Your task to perform on an android device: Is it going to rain tomorrow? Image 0: 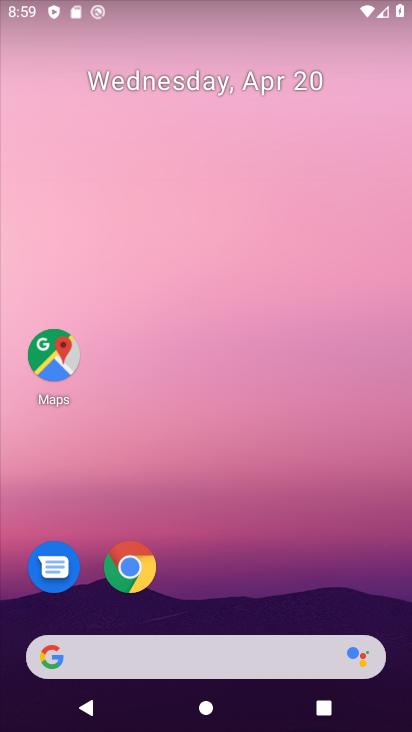
Step 0: click (194, 655)
Your task to perform on an android device: Is it going to rain tomorrow? Image 1: 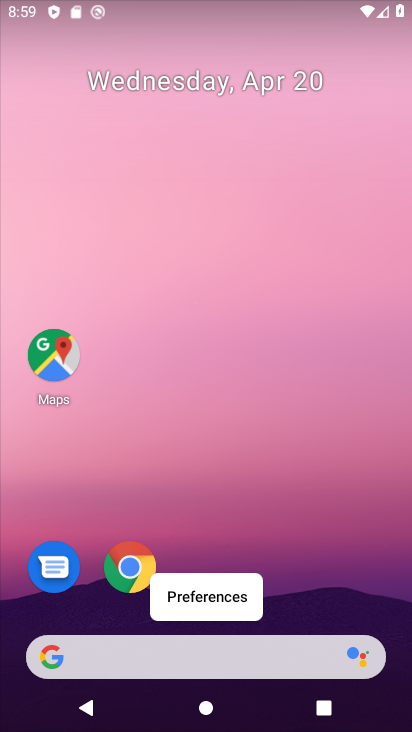
Step 1: click (198, 656)
Your task to perform on an android device: Is it going to rain tomorrow? Image 2: 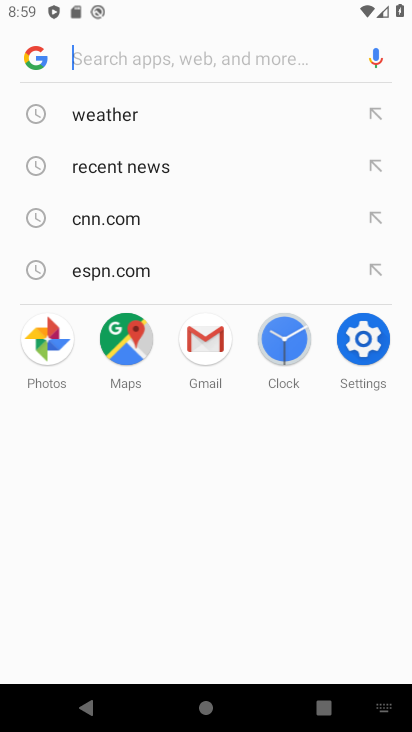
Step 2: click (134, 115)
Your task to perform on an android device: Is it going to rain tomorrow? Image 3: 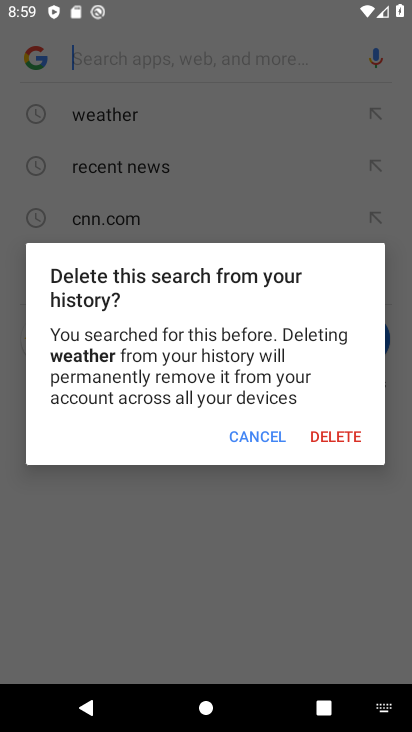
Step 3: click (256, 435)
Your task to perform on an android device: Is it going to rain tomorrow? Image 4: 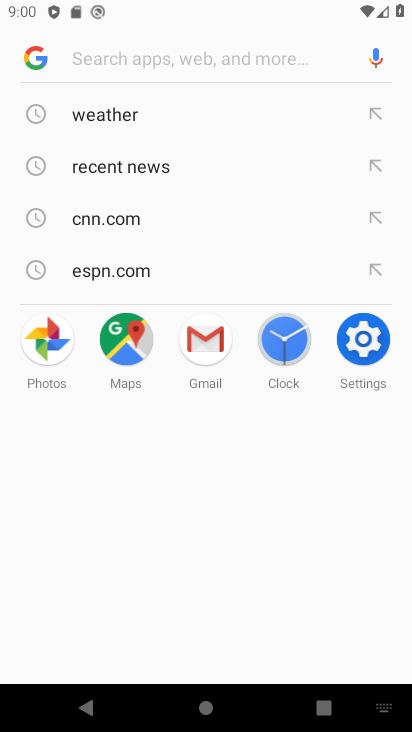
Step 4: click (115, 117)
Your task to perform on an android device: Is it going to rain tomorrow? Image 5: 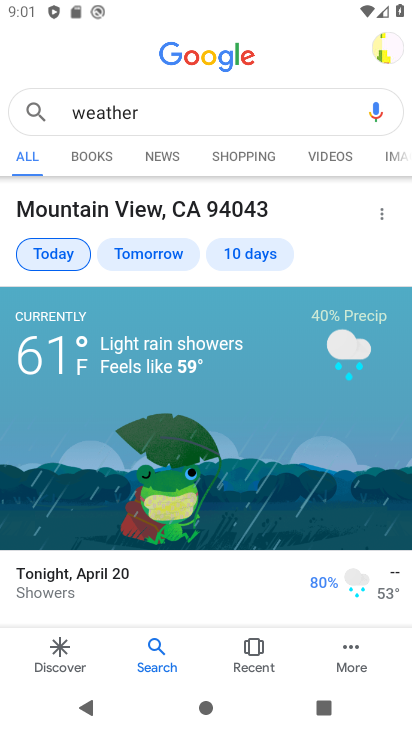
Step 5: click (127, 247)
Your task to perform on an android device: Is it going to rain tomorrow? Image 6: 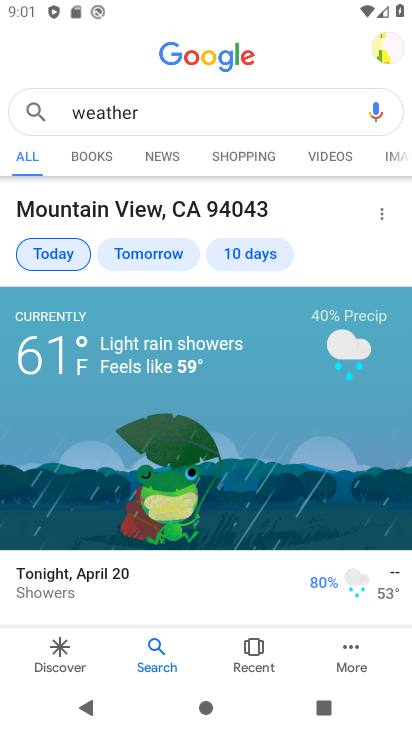
Step 6: click (150, 253)
Your task to perform on an android device: Is it going to rain tomorrow? Image 7: 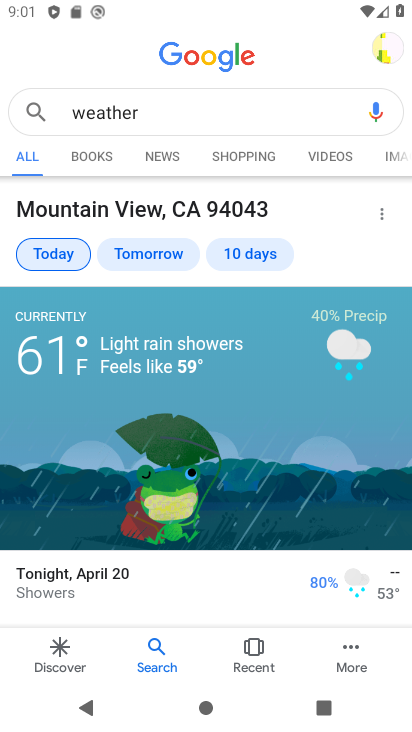
Step 7: click (153, 250)
Your task to perform on an android device: Is it going to rain tomorrow? Image 8: 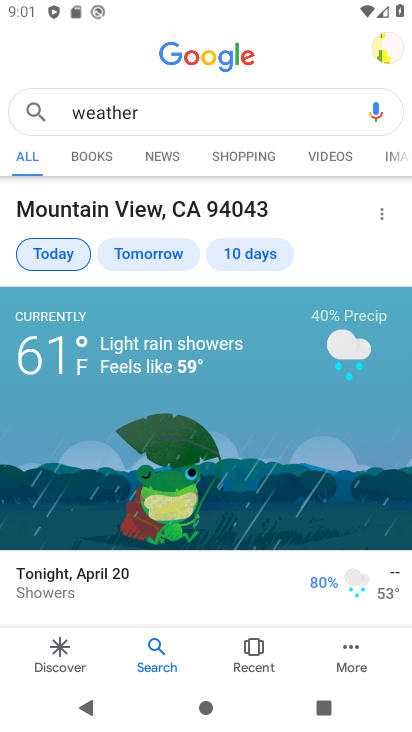
Step 8: task complete